Your task to perform on an android device: Show the shopping cart on newegg. Search for sony triple a on newegg, select the first entry, and add it to the cart. Image 0: 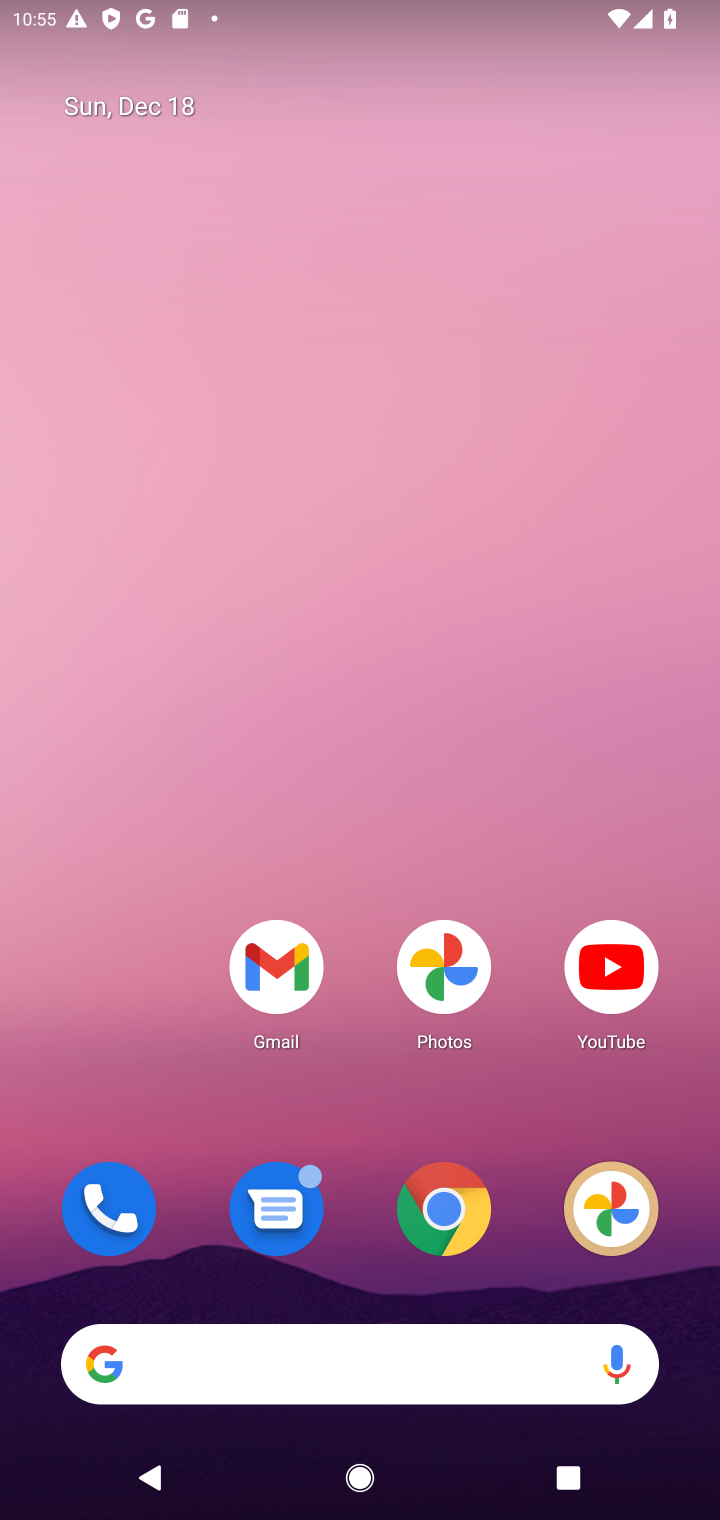
Step 0: click (434, 1201)
Your task to perform on an android device: Show the shopping cart on newegg. Search for sony triple a on newegg, select the first entry, and add it to the cart. Image 1: 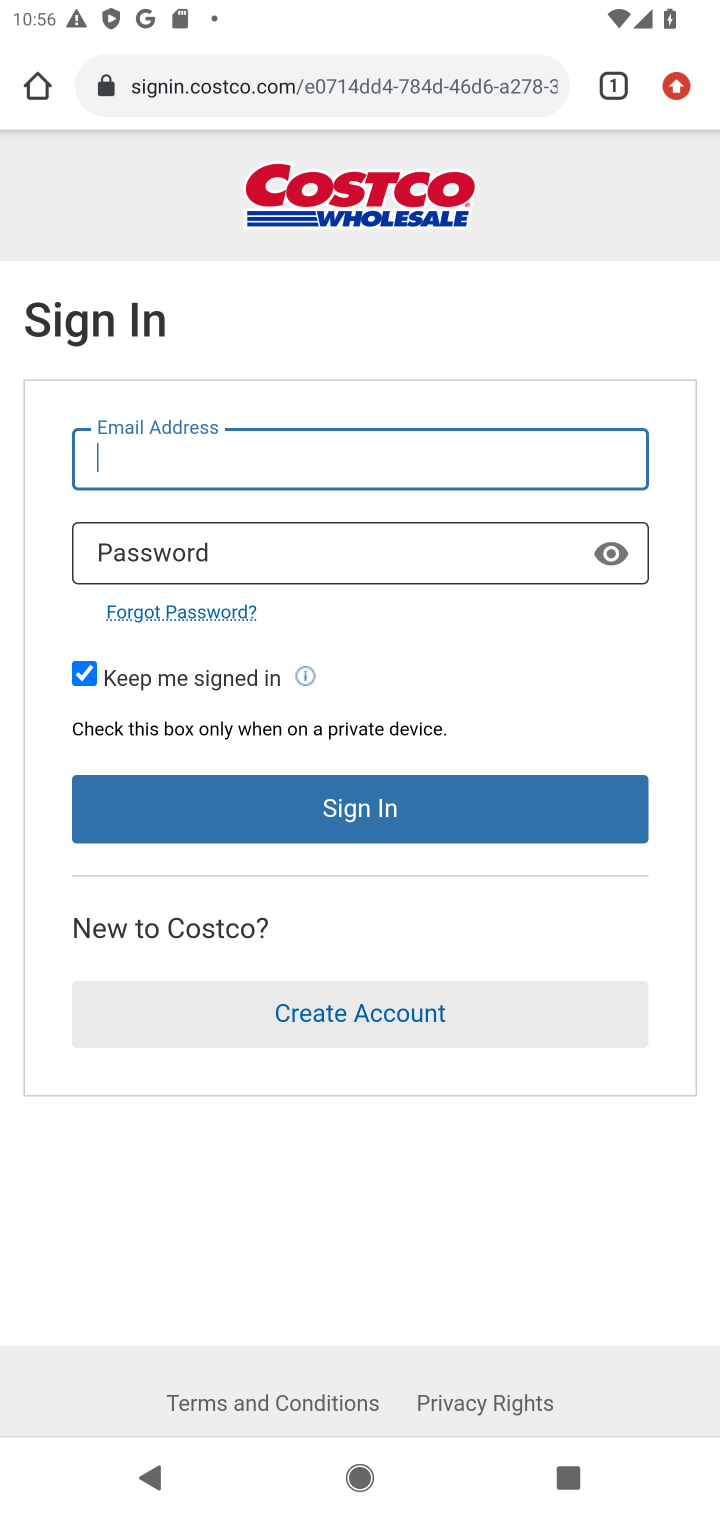
Step 1: click (314, 80)
Your task to perform on an android device: Show the shopping cart on newegg. Search for sony triple a on newegg, select the first entry, and add it to the cart. Image 2: 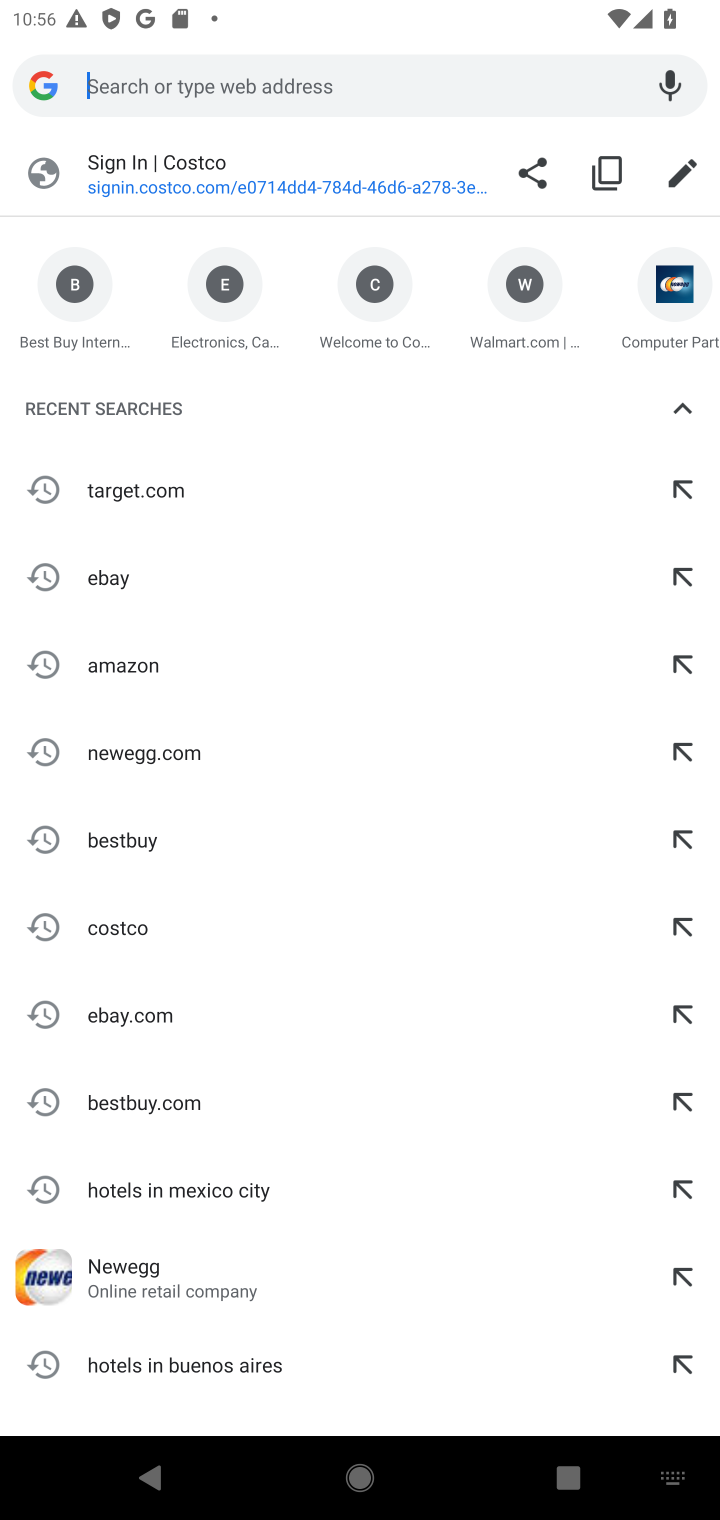
Step 2: click (248, 760)
Your task to perform on an android device: Show the shopping cart on newegg. Search for sony triple a on newegg, select the first entry, and add it to the cart. Image 3: 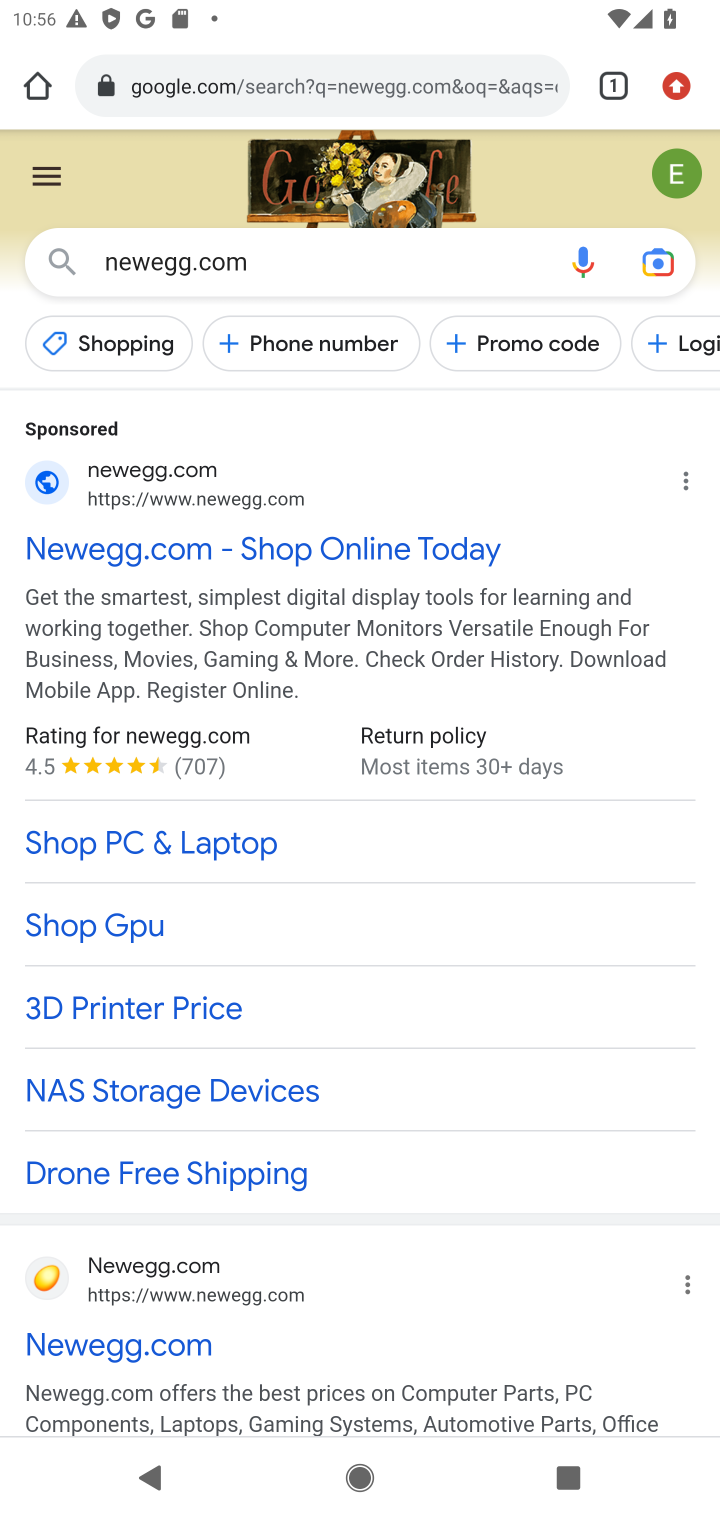
Step 3: click (249, 558)
Your task to perform on an android device: Show the shopping cart on newegg. Search for sony triple a on newegg, select the first entry, and add it to the cart. Image 4: 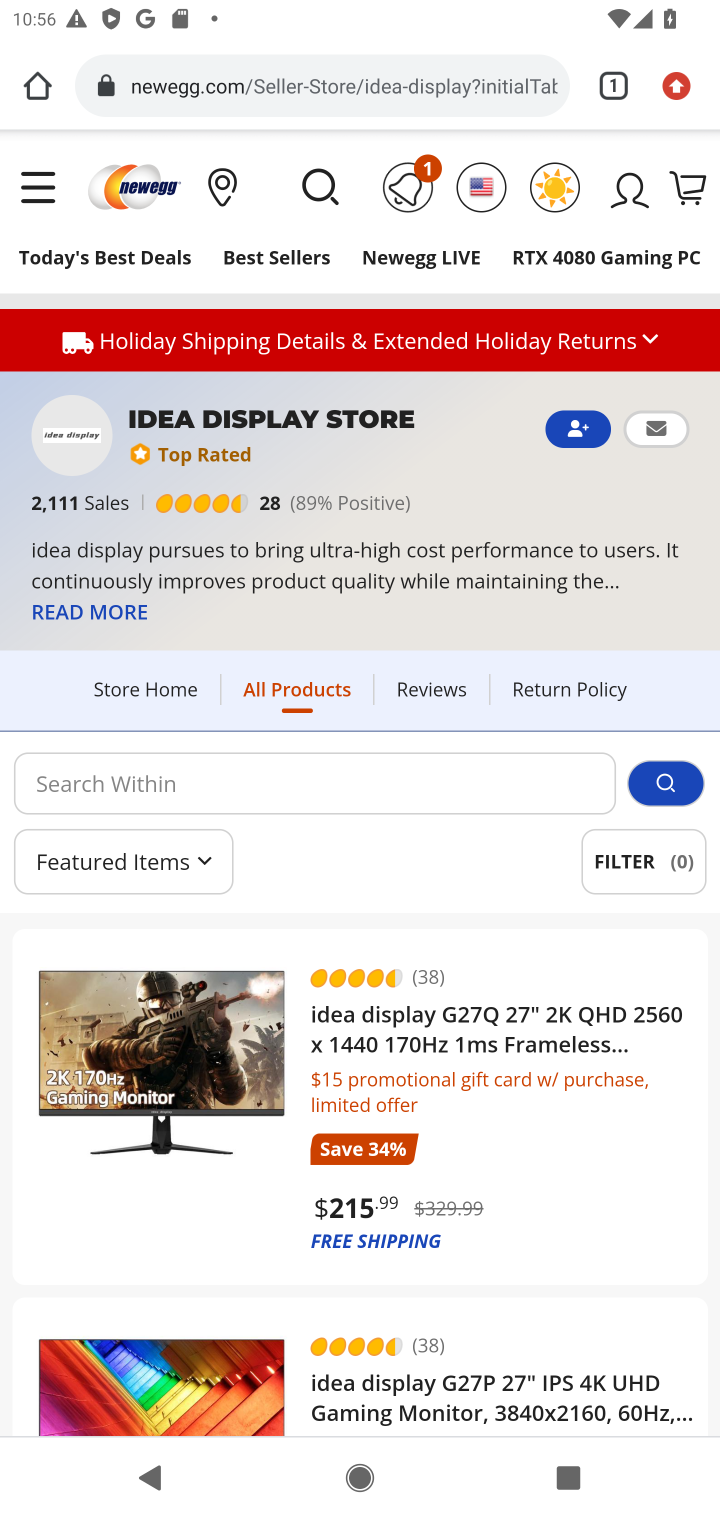
Step 4: click (135, 179)
Your task to perform on an android device: Show the shopping cart on newegg. Search for sony triple a on newegg, select the first entry, and add it to the cart. Image 5: 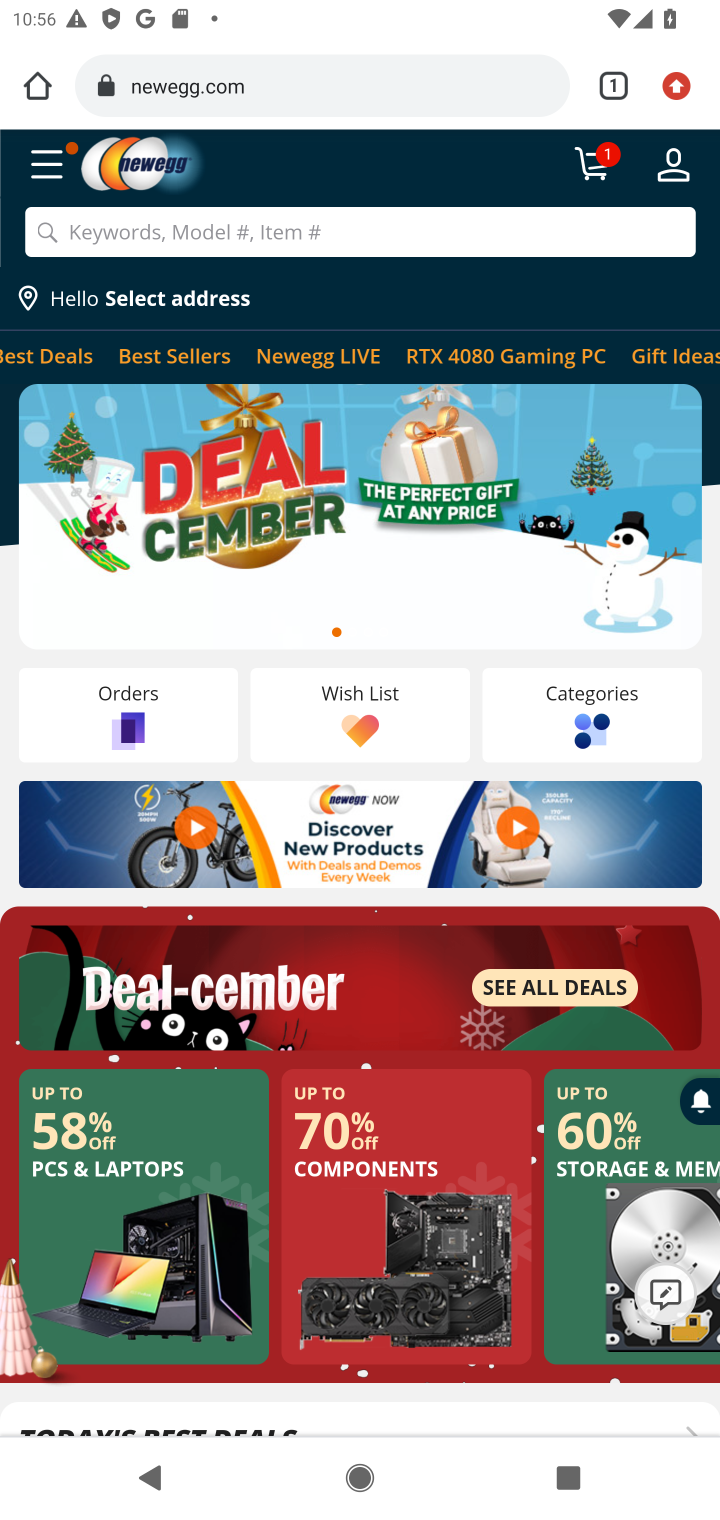
Step 5: click (341, 231)
Your task to perform on an android device: Show the shopping cart on newegg. Search for sony triple a on newegg, select the first entry, and add it to the cart. Image 6: 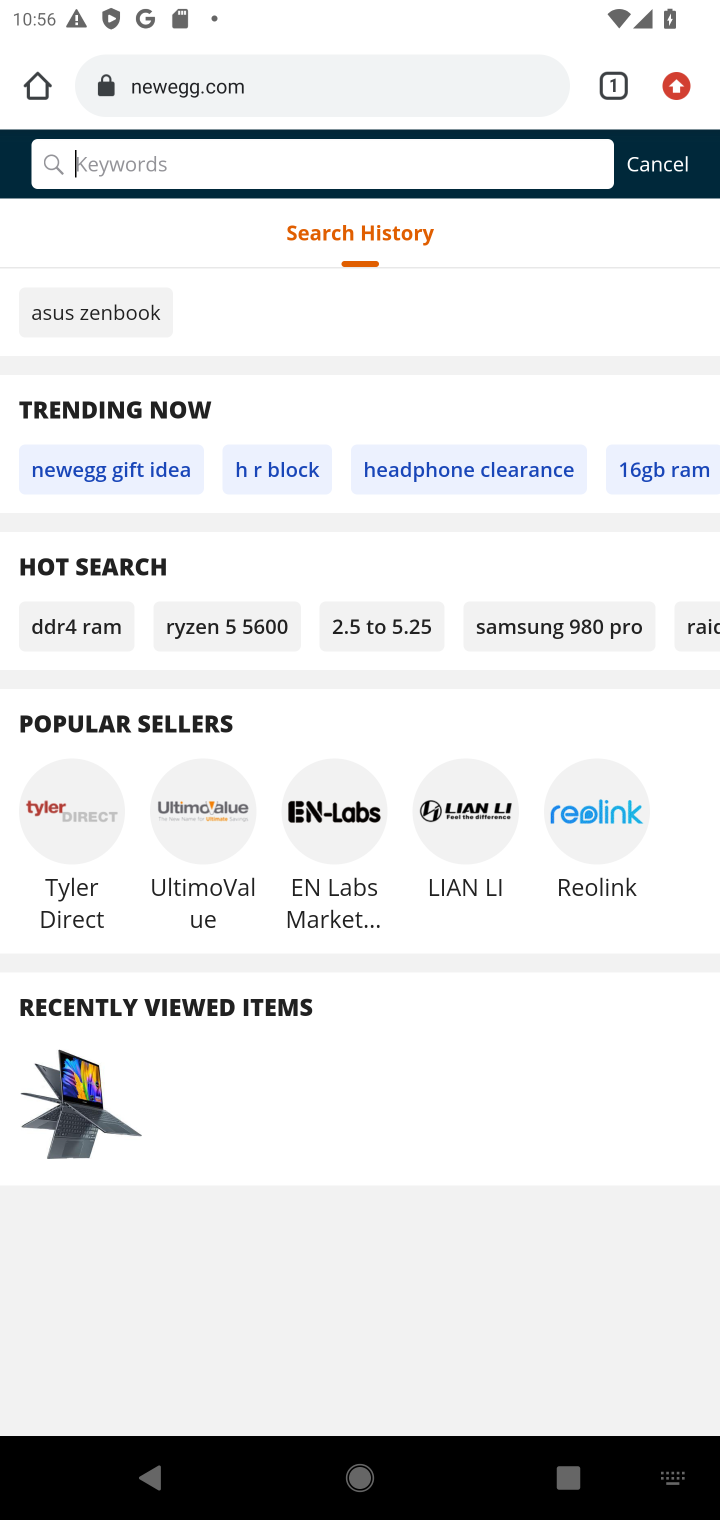
Step 6: type "sony triple a"
Your task to perform on an android device: Show the shopping cart on newegg. Search for sony triple a on newegg, select the first entry, and add it to the cart. Image 7: 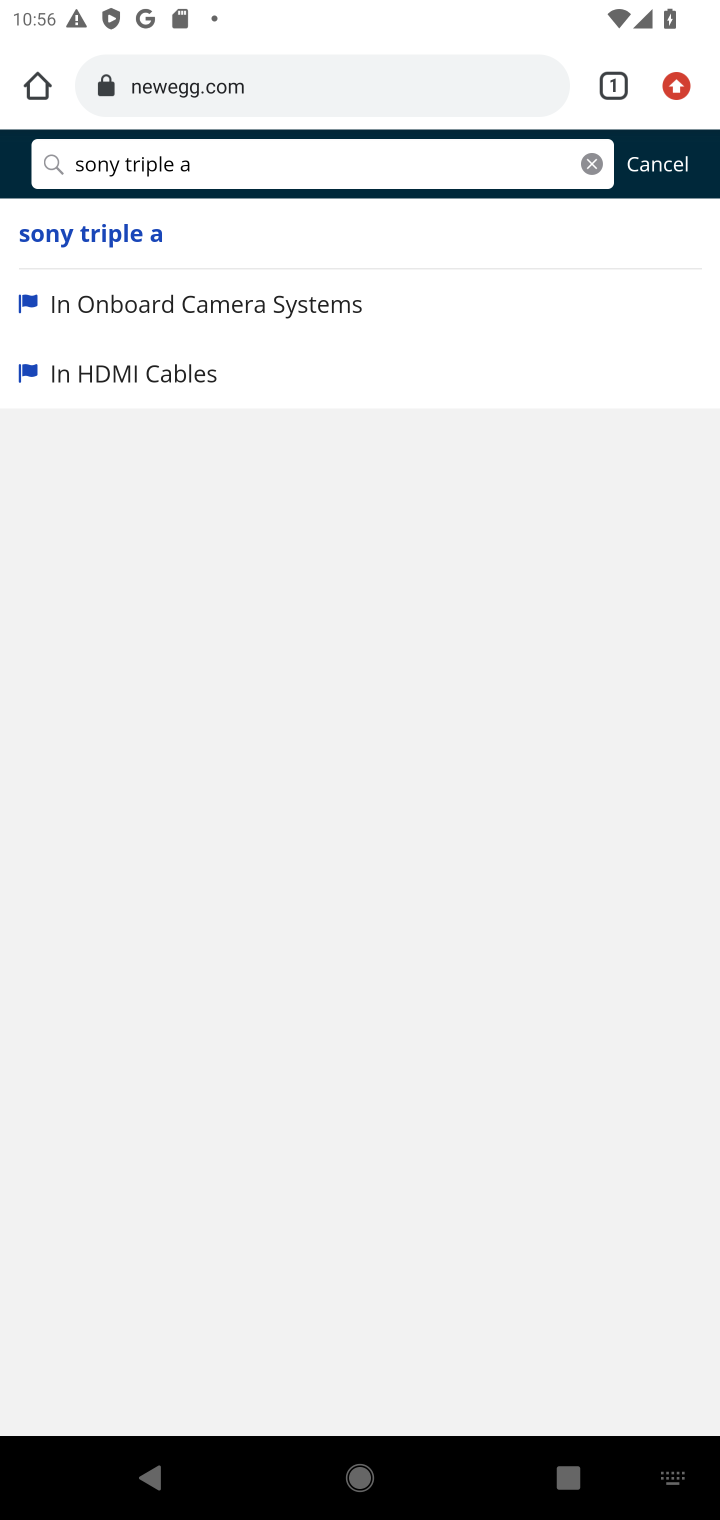
Step 7: click (118, 239)
Your task to perform on an android device: Show the shopping cart on newegg. Search for sony triple a on newegg, select the first entry, and add it to the cart. Image 8: 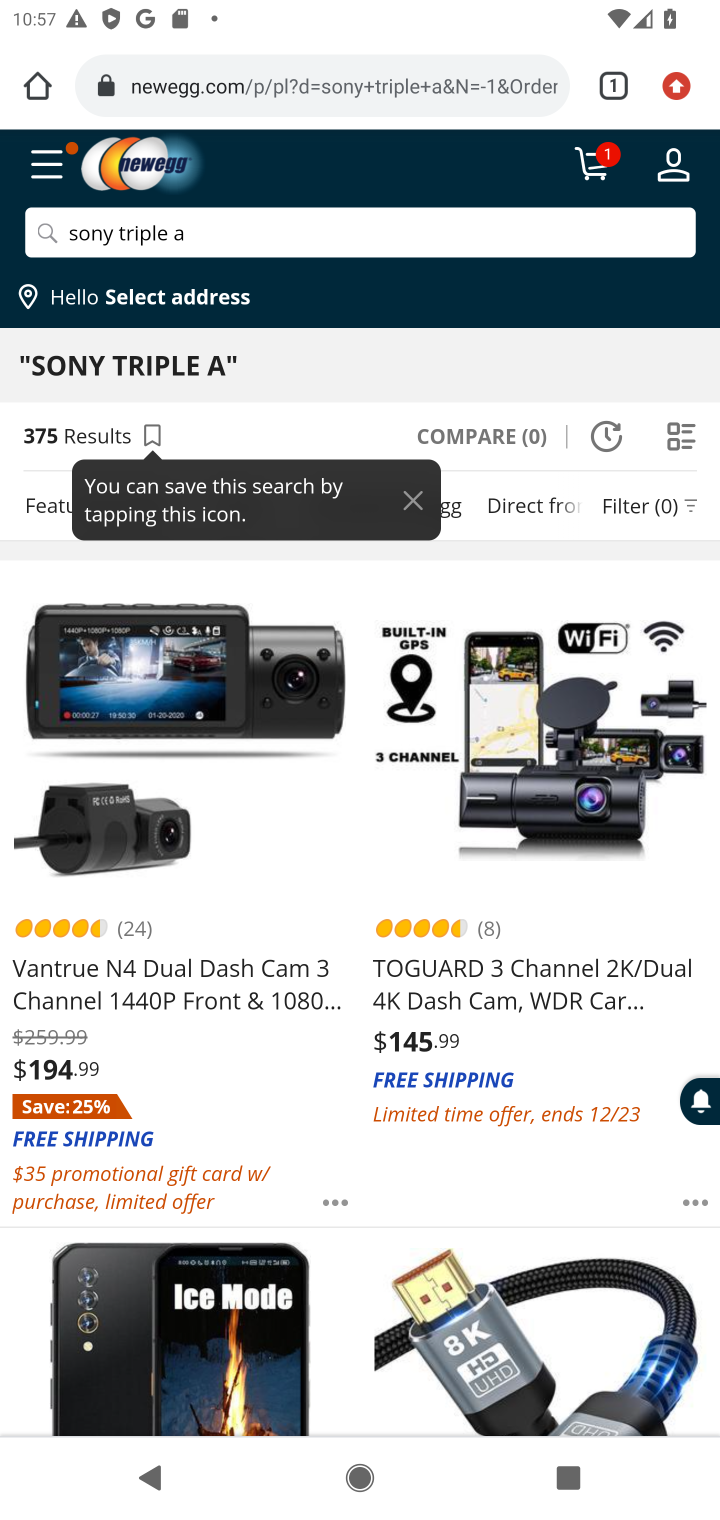
Step 8: click (191, 797)
Your task to perform on an android device: Show the shopping cart on newegg. Search for sony triple a on newegg, select the first entry, and add it to the cart. Image 9: 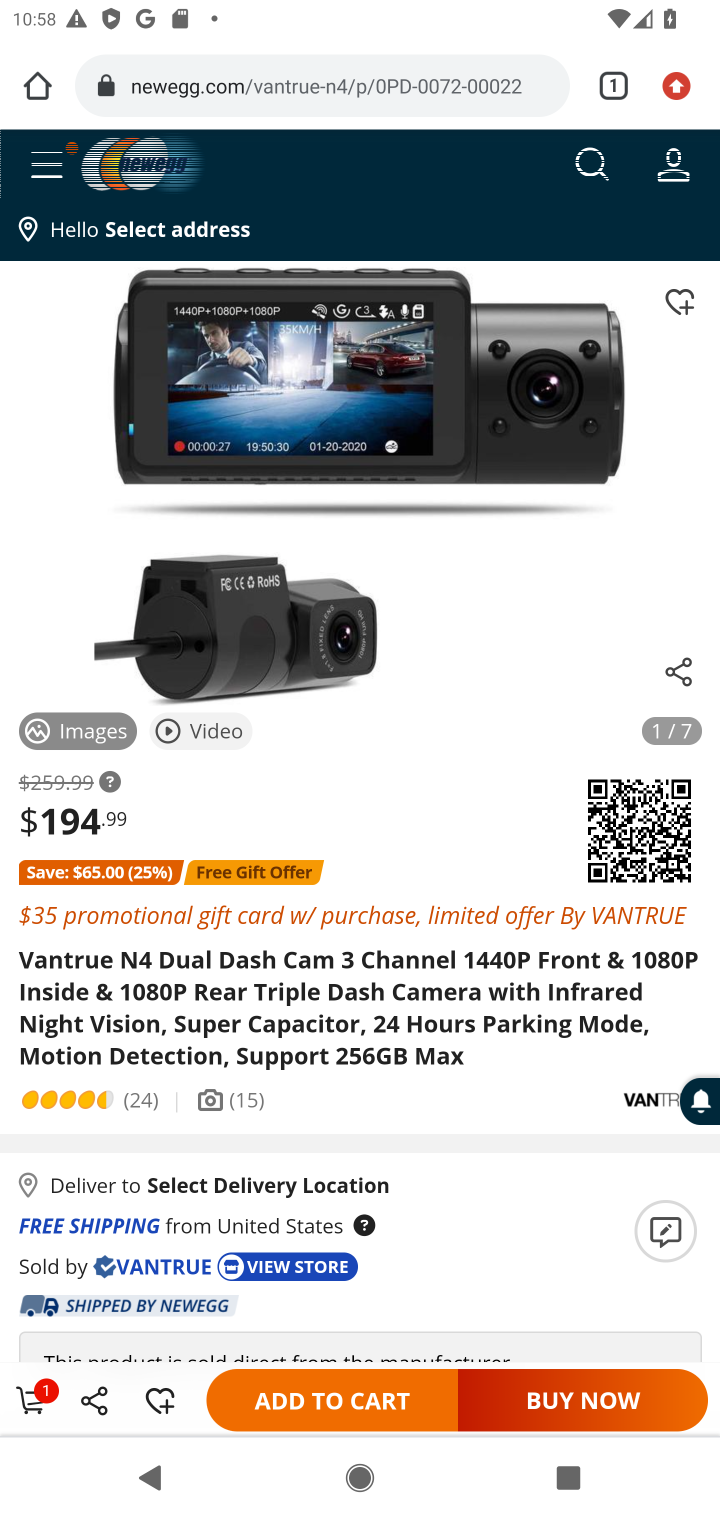
Step 9: click (331, 1412)
Your task to perform on an android device: Show the shopping cart on newegg. Search for sony triple a on newegg, select the first entry, and add it to the cart. Image 10: 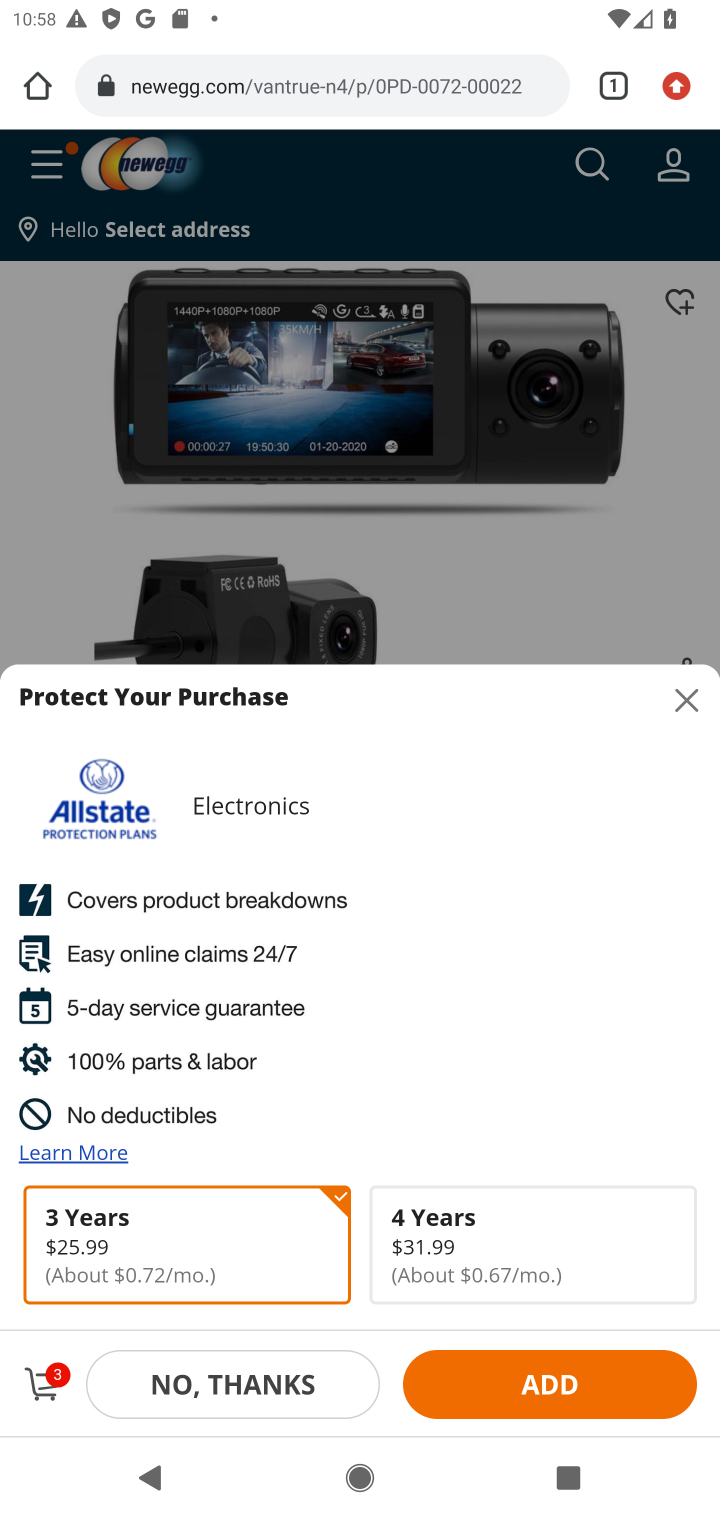
Step 10: click (162, 1391)
Your task to perform on an android device: Show the shopping cart on newegg. Search for sony triple a on newegg, select the first entry, and add it to the cart. Image 11: 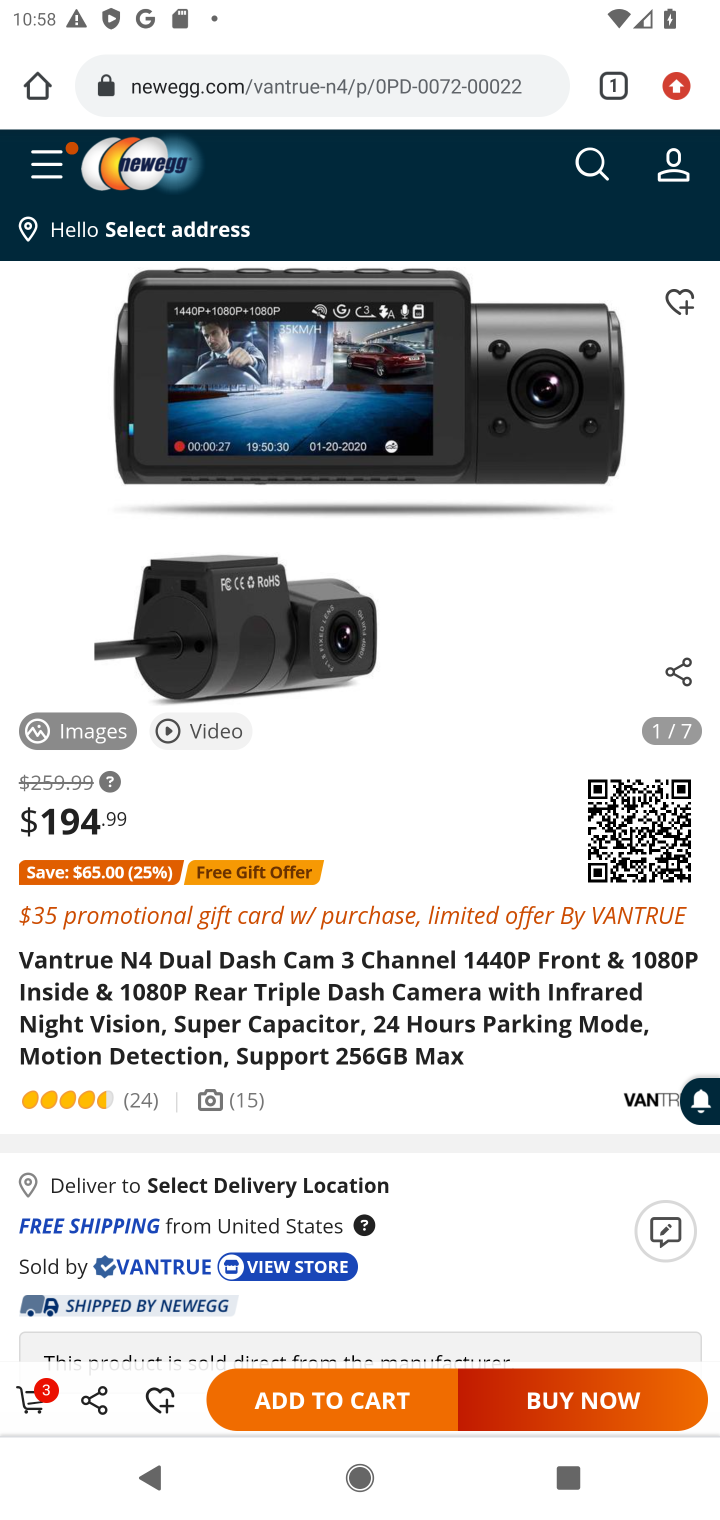
Step 11: task complete